Your task to perform on an android device: find which apps use the phone's location Image 0: 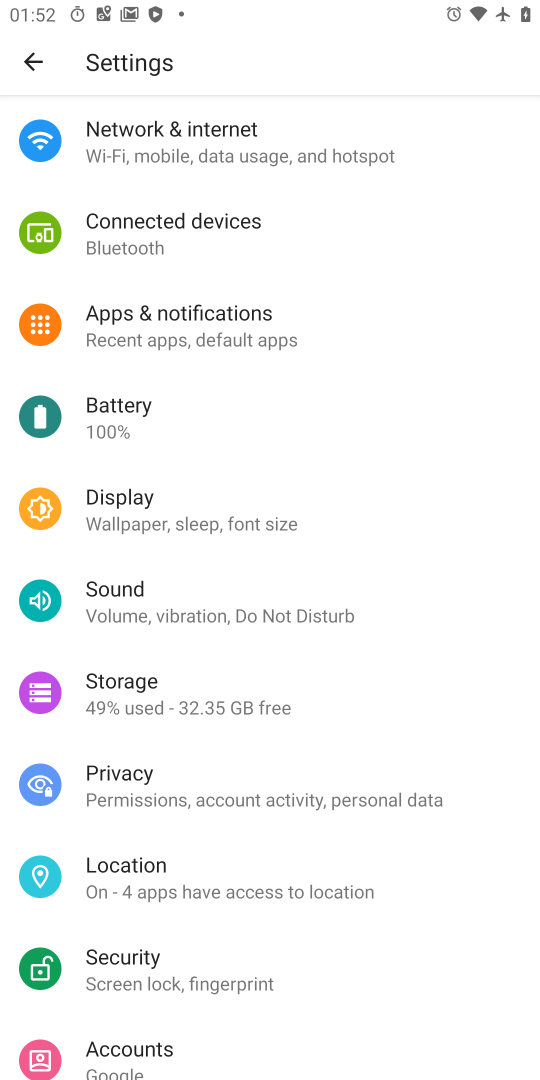
Step 0: click (167, 894)
Your task to perform on an android device: find which apps use the phone's location Image 1: 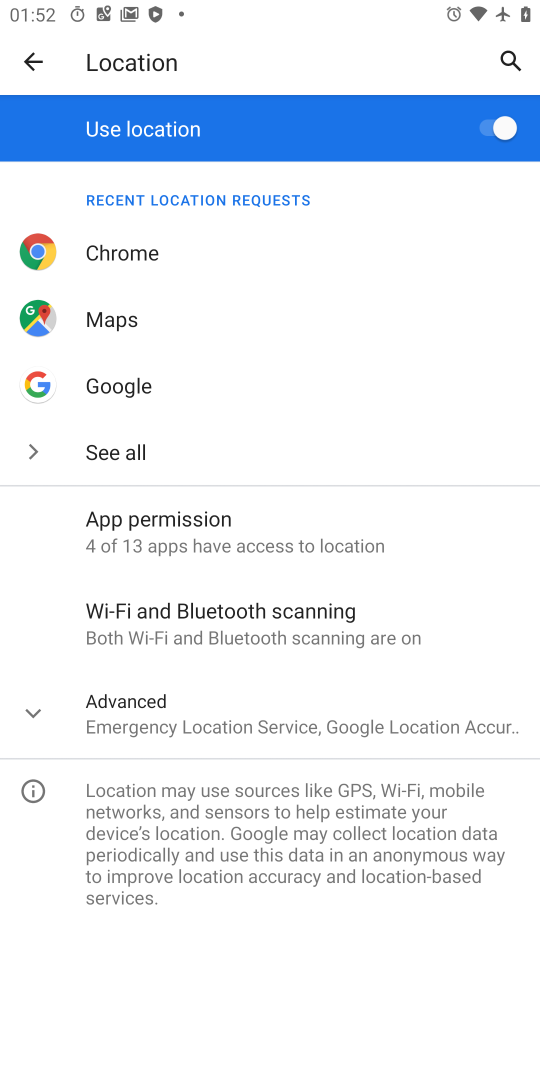
Step 1: click (178, 523)
Your task to perform on an android device: find which apps use the phone's location Image 2: 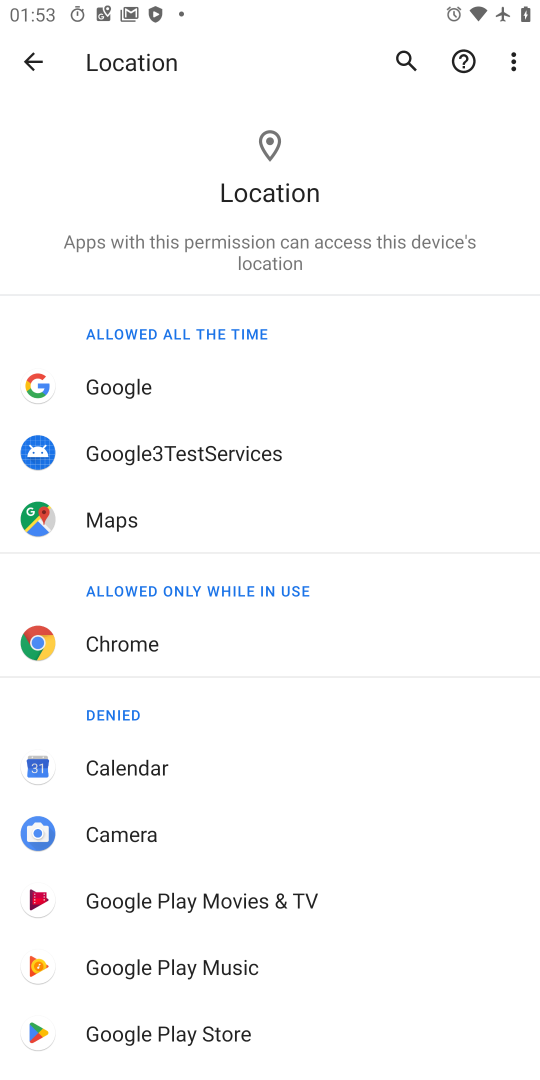
Step 2: task complete